Your task to perform on an android device: turn pop-ups on in chrome Image 0: 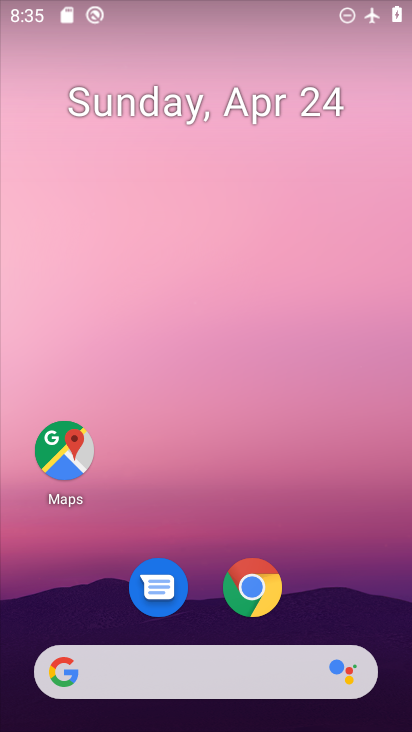
Step 0: drag from (350, 595) to (307, 254)
Your task to perform on an android device: turn pop-ups on in chrome Image 1: 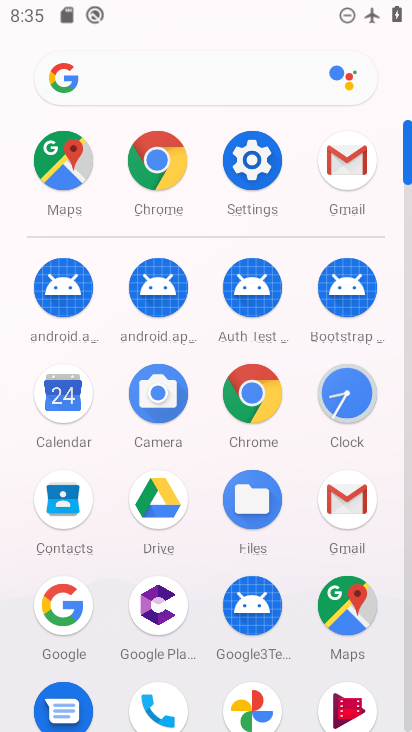
Step 1: click (241, 154)
Your task to perform on an android device: turn pop-ups on in chrome Image 2: 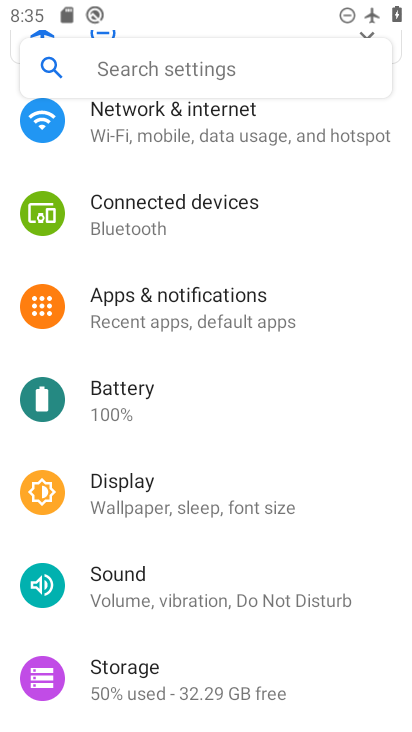
Step 2: click (166, 149)
Your task to perform on an android device: turn pop-ups on in chrome Image 3: 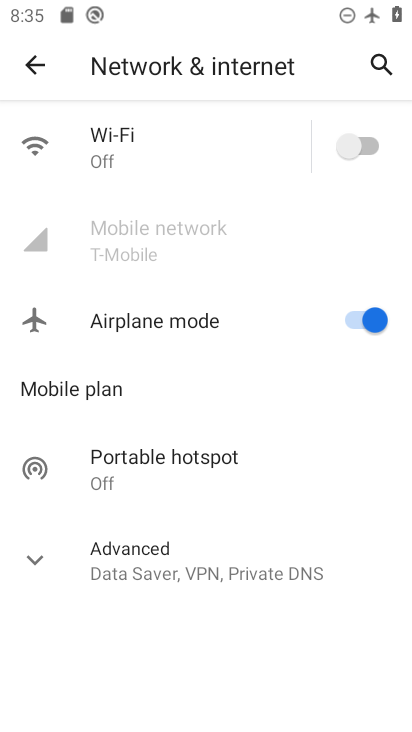
Step 3: click (362, 318)
Your task to perform on an android device: turn pop-ups on in chrome Image 4: 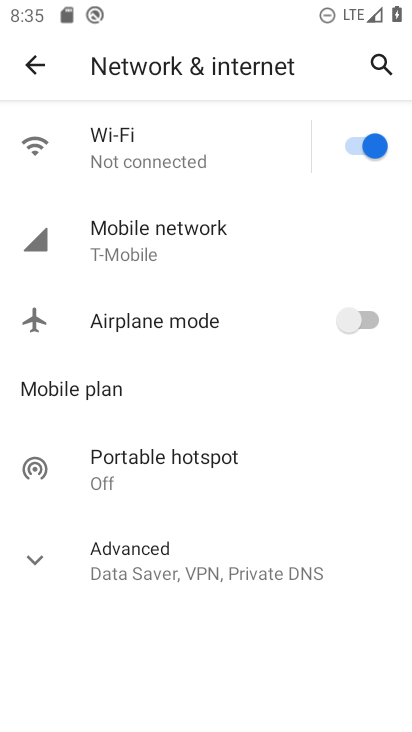
Step 4: task complete